Your task to perform on an android device: show emergency info Image 0: 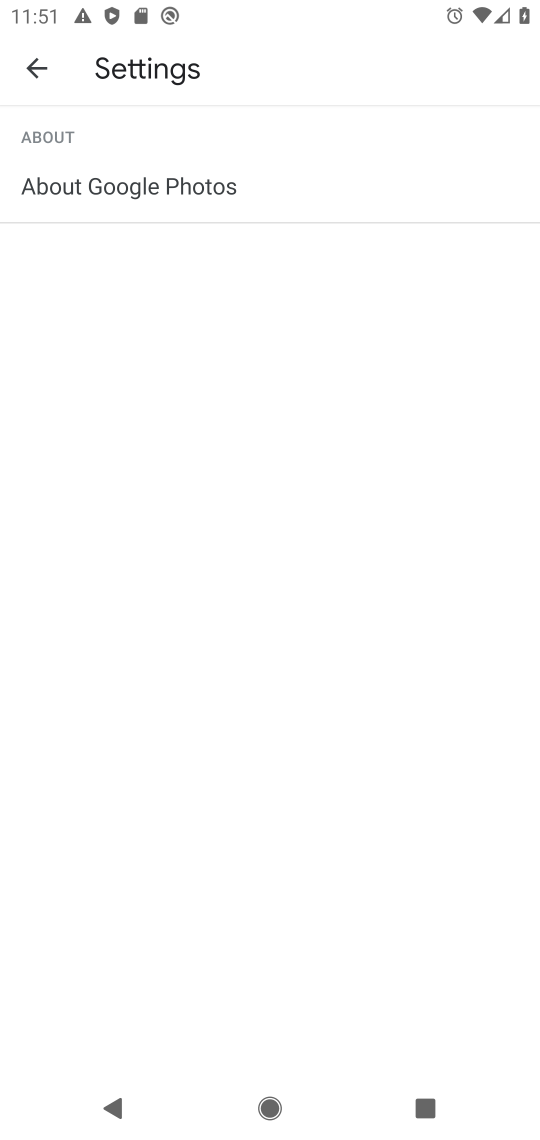
Step 0: press home button
Your task to perform on an android device: show emergency info Image 1: 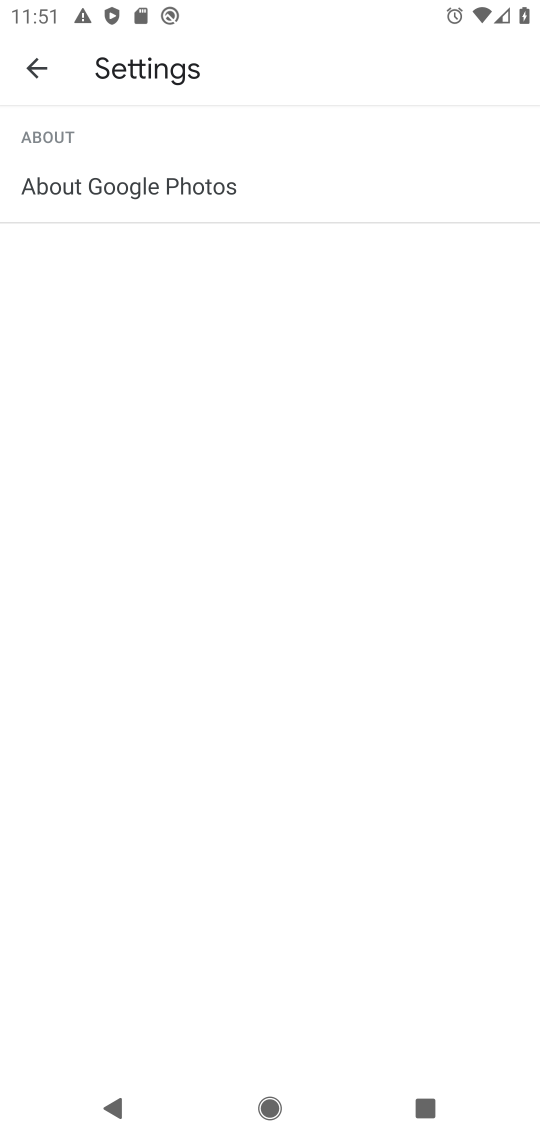
Step 1: press home button
Your task to perform on an android device: show emergency info Image 2: 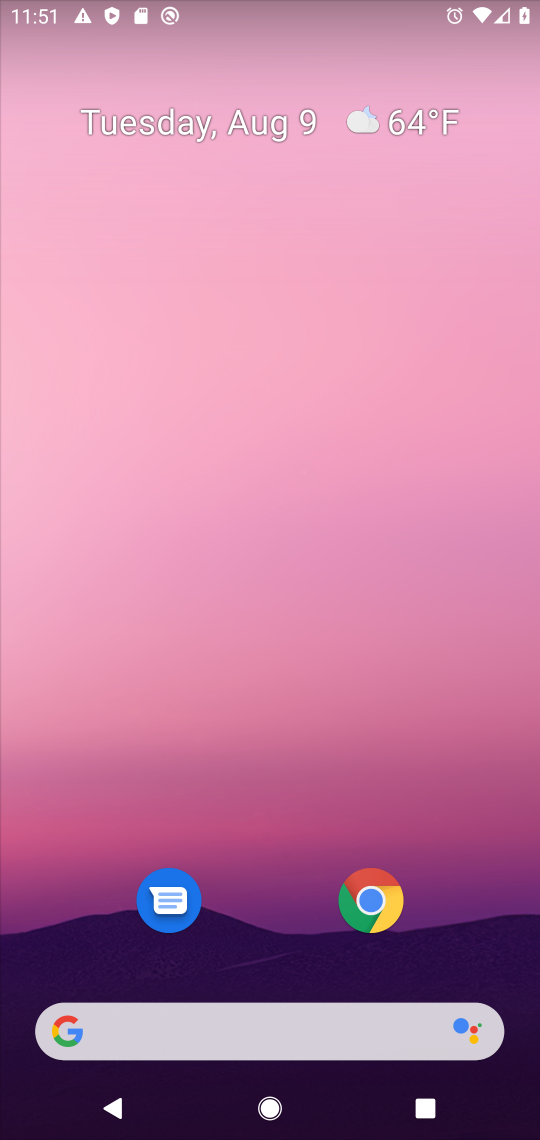
Step 2: drag from (286, 923) to (328, 5)
Your task to perform on an android device: show emergency info Image 3: 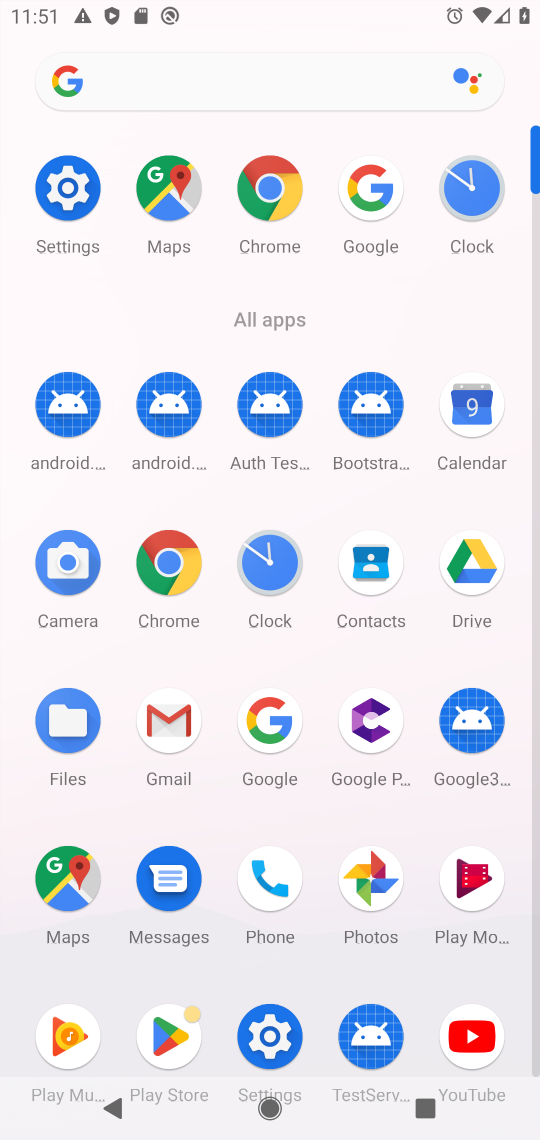
Step 3: click (71, 188)
Your task to perform on an android device: show emergency info Image 4: 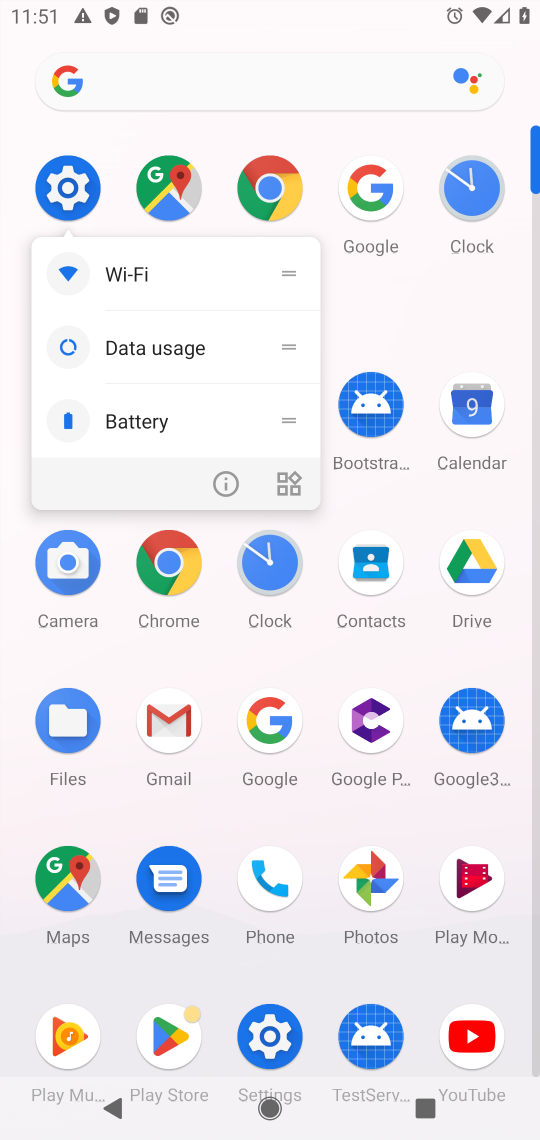
Step 4: click (71, 188)
Your task to perform on an android device: show emergency info Image 5: 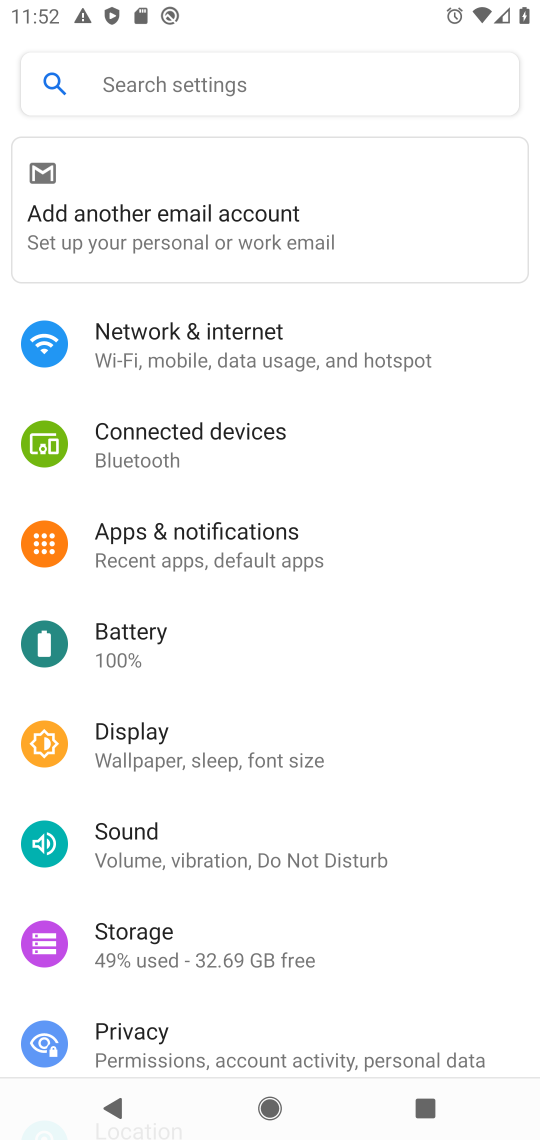
Step 5: drag from (276, 911) to (356, 2)
Your task to perform on an android device: show emergency info Image 6: 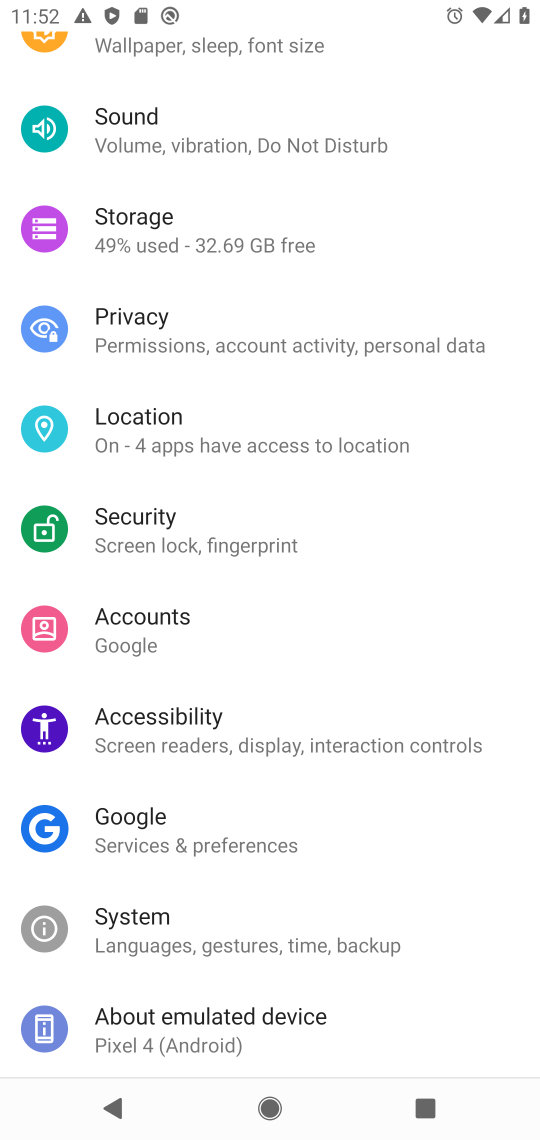
Step 6: click (266, 1017)
Your task to perform on an android device: show emergency info Image 7: 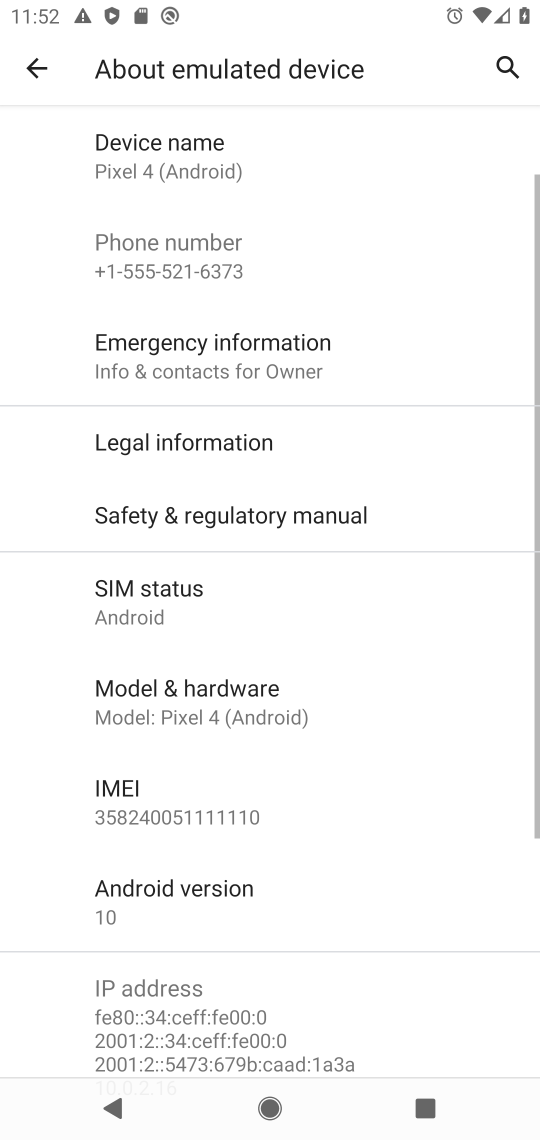
Step 7: click (288, 367)
Your task to perform on an android device: show emergency info Image 8: 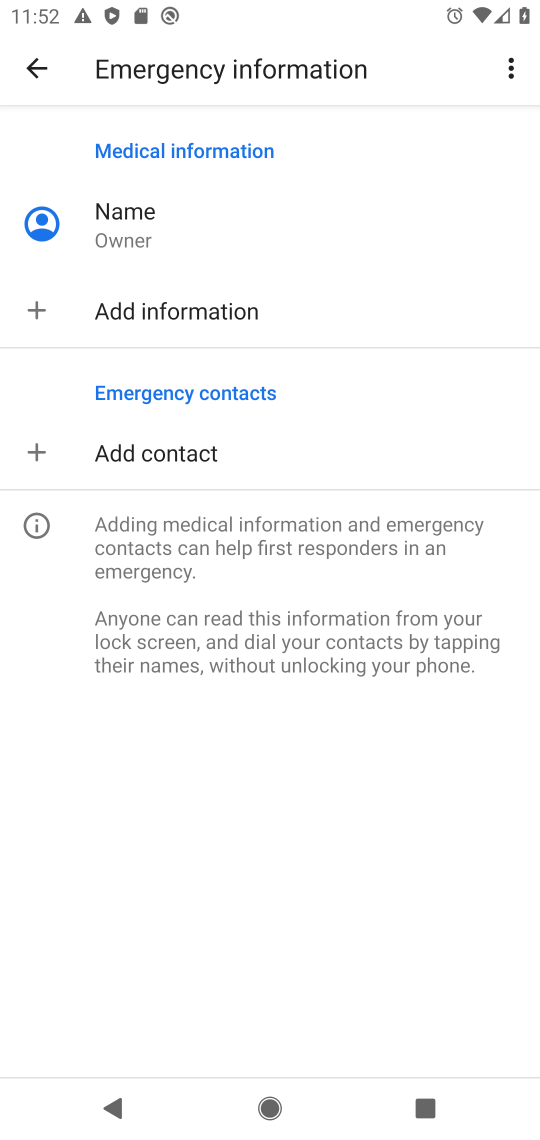
Step 8: task complete